Your task to perform on an android device: Open calendar and show me the third week of next month Image 0: 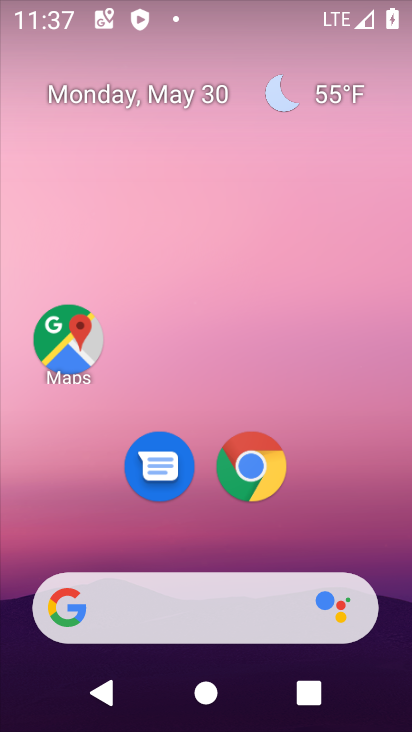
Step 0: drag from (351, 565) to (327, 147)
Your task to perform on an android device: Open calendar and show me the third week of next month Image 1: 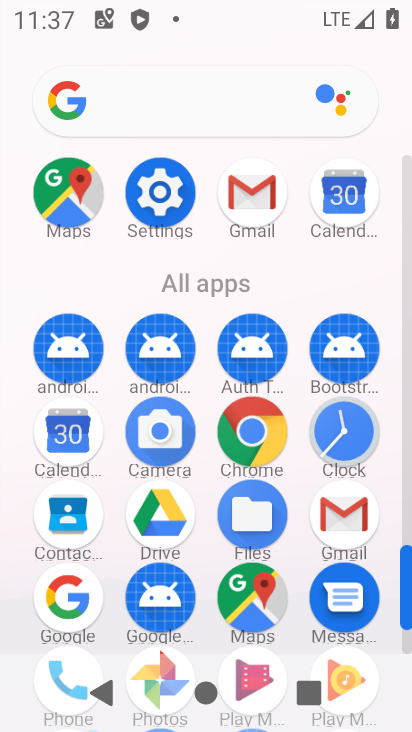
Step 1: click (342, 209)
Your task to perform on an android device: Open calendar and show me the third week of next month Image 2: 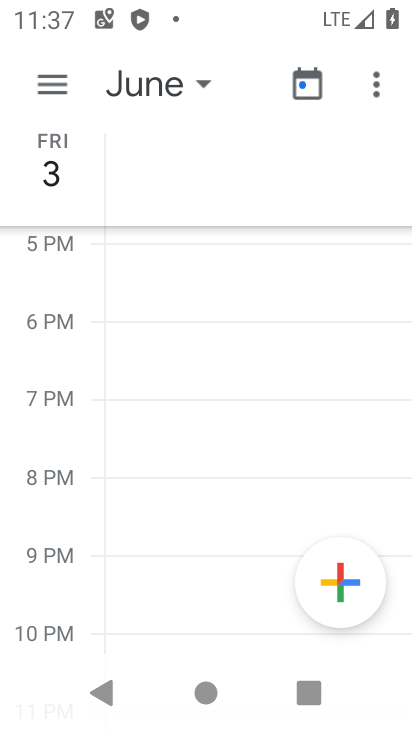
Step 2: click (67, 77)
Your task to perform on an android device: Open calendar and show me the third week of next month Image 3: 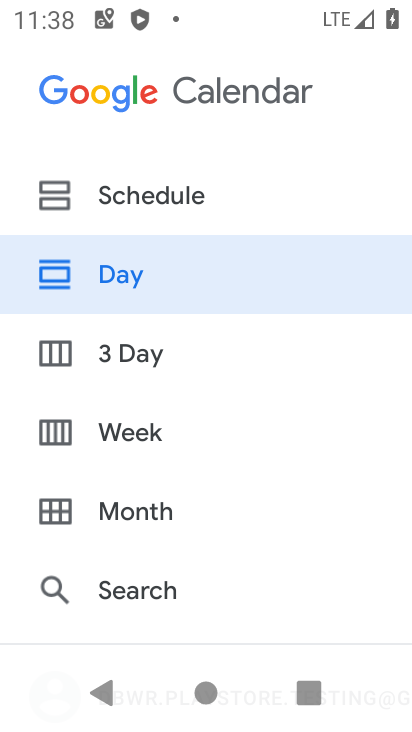
Step 3: click (116, 437)
Your task to perform on an android device: Open calendar and show me the third week of next month Image 4: 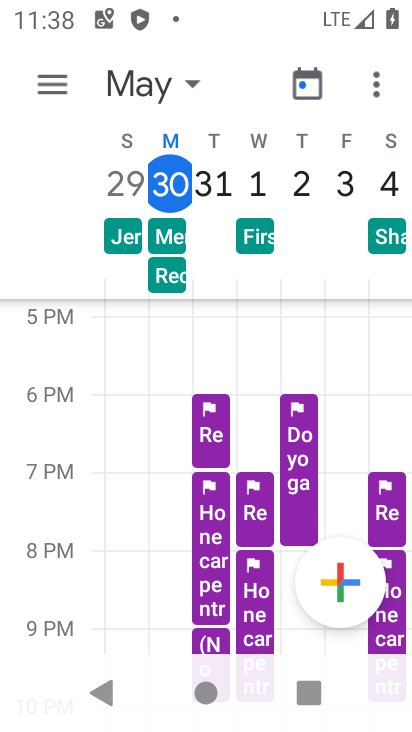
Step 4: click (149, 74)
Your task to perform on an android device: Open calendar and show me the third week of next month Image 5: 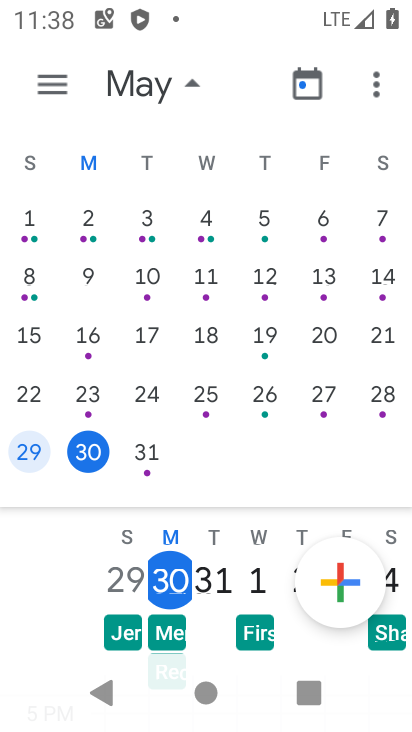
Step 5: drag from (338, 322) to (10, 305)
Your task to perform on an android device: Open calendar and show me the third week of next month Image 6: 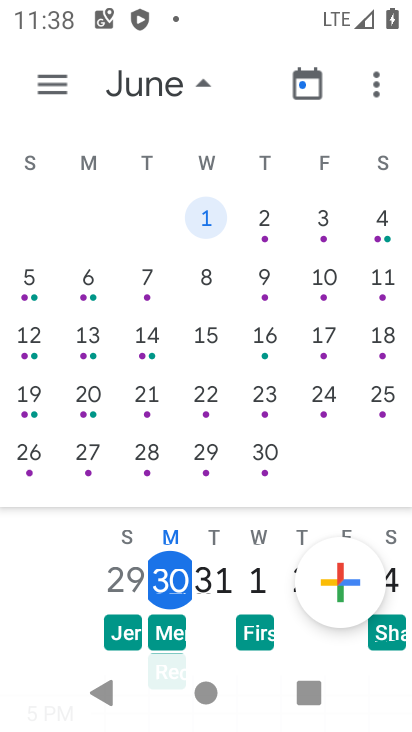
Step 6: click (88, 396)
Your task to perform on an android device: Open calendar and show me the third week of next month Image 7: 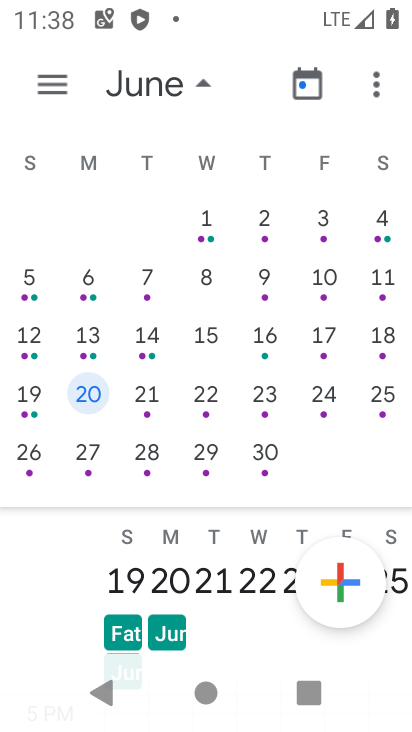
Step 7: task complete